Your task to perform on an android device: open wifi settings Image 0: 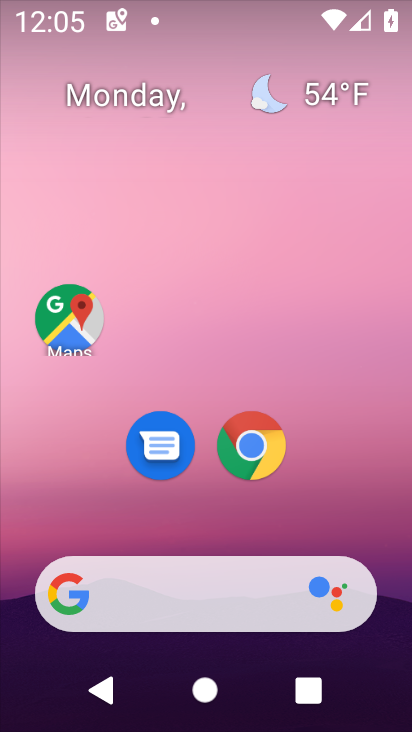
Step 0: drag from (384, 532) to (384, 110)
Your task to perform on an android device: open wifi settings Image 1: 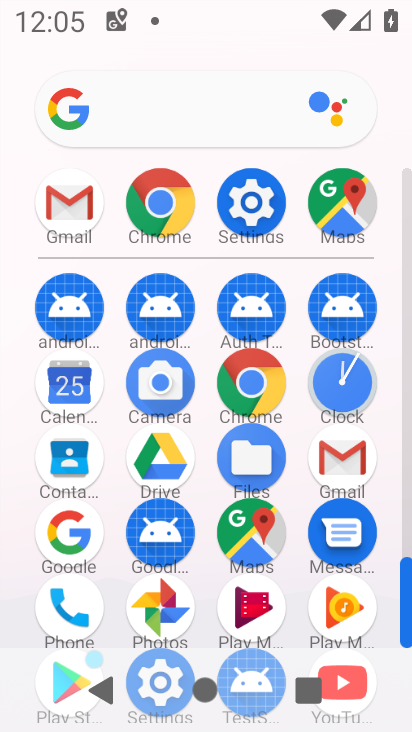
Step 1: drag from (375, 447) to (375, 175)
Your task to perform on an android device: open wifi settings Image 2: 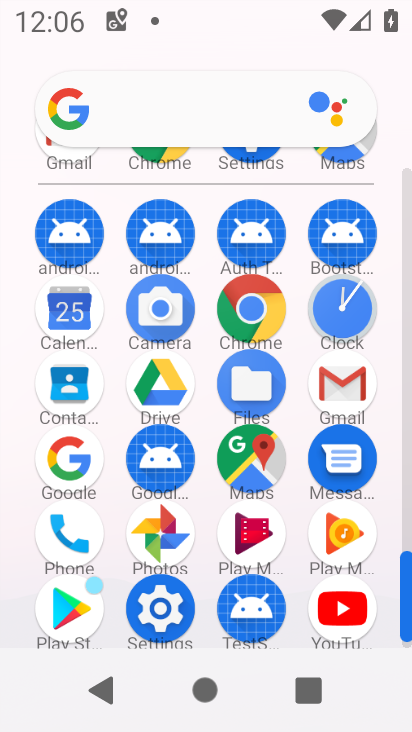
Step 2: click (169, 606)
Your task to perform on an android device: open wifi settings Image 3: 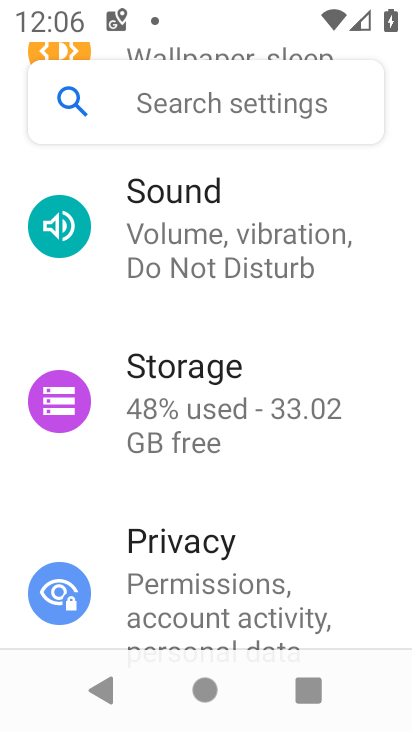
Step 3: drag from (287, 310) to (320, 537)
Your task to perform on an android device: open wifi settings Image 4: 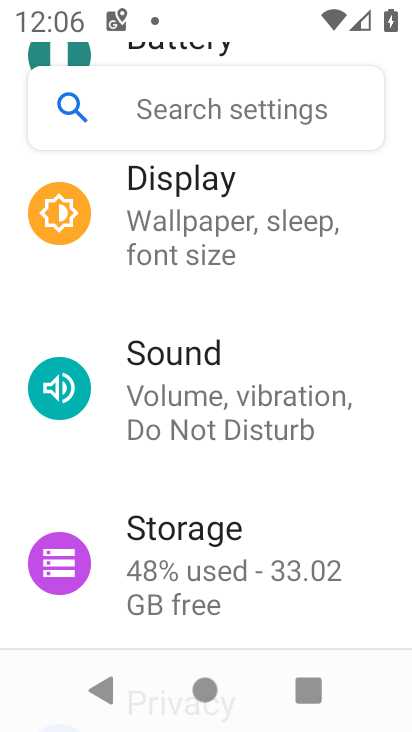
Step 4: drag from (305, 252) to (331, 511)
Your task to perform on an android device: open wifi settings Image 5: 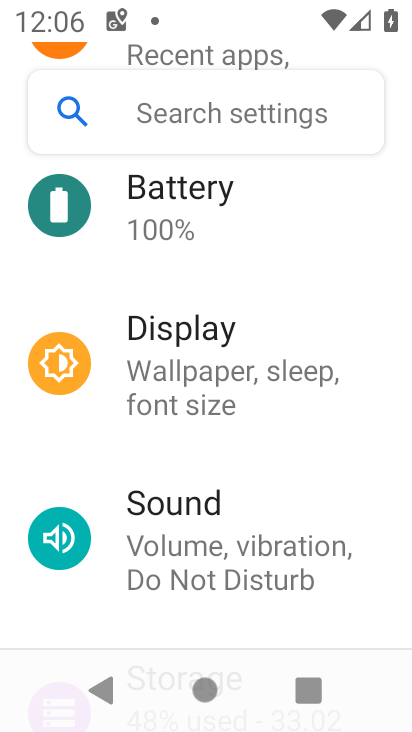
Step 5: drag from (307, 273) to (292, 558)
Your task to perform on an android device: open wifi settings Image 6: 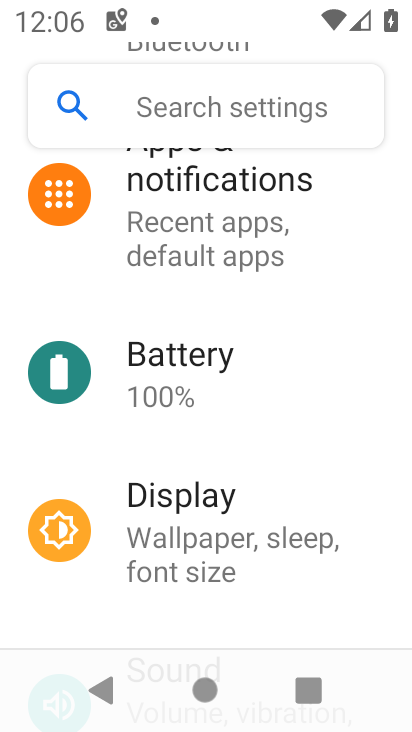
Step 6: drag from (324, 229) to (309, 645)
Your task to perform on an android device: open wifi settings Image 7: 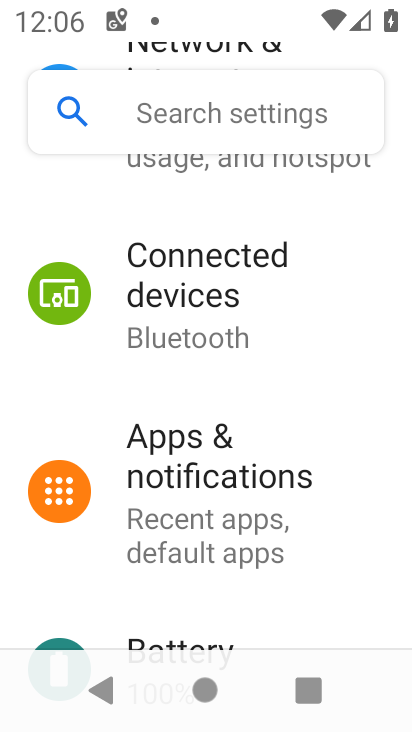
Step 7: drag from (307, 251) to (308, 659)
Your task to perform on an android device: open wifi settings Image 8: 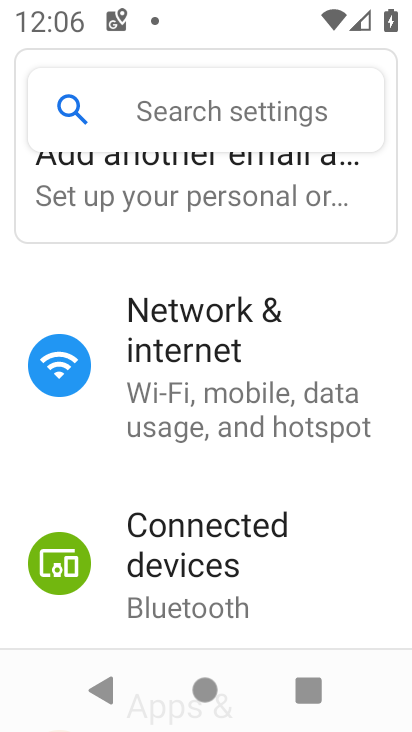
Step 8: click (272, 374)
Your task to perform on an android device: open wifi settings Image 9: 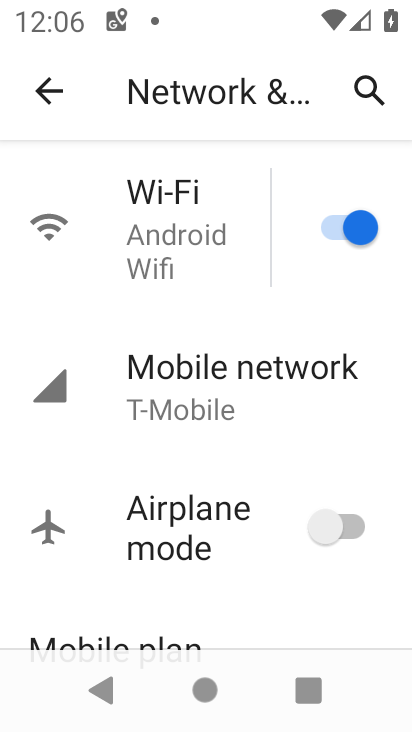
Step 9: click (202, 246)
Your task to perform on an android device: open wifi settings Image 10: 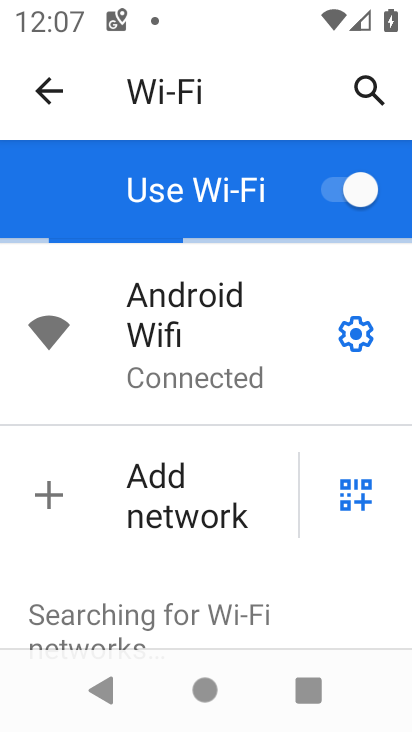
Step 10: click (346, 344)
Your task to perform on an android device: open wifi settings Image 11: 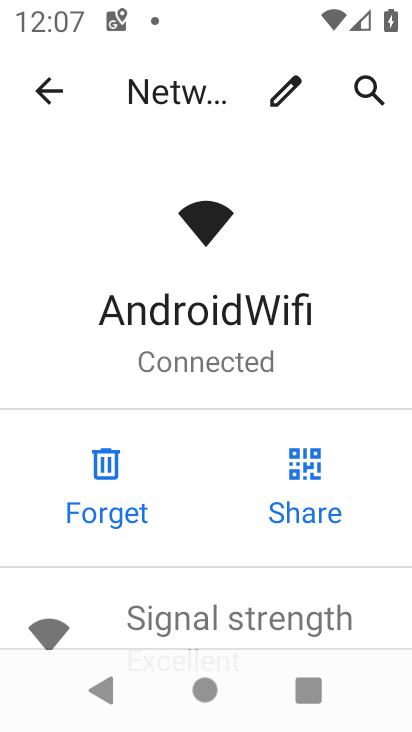
Step 11: task complete